Your task to perform on an android device: Search for vegetarian restaurants on Maps Image 0: 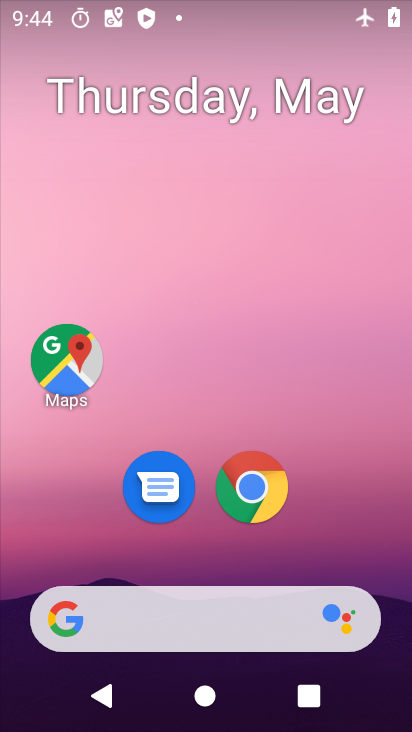
Step 0: drag from (290, 615) to (311, 205)
Your task to perform on an android device: Search for vegetarian restaurants on Maps Image 1: 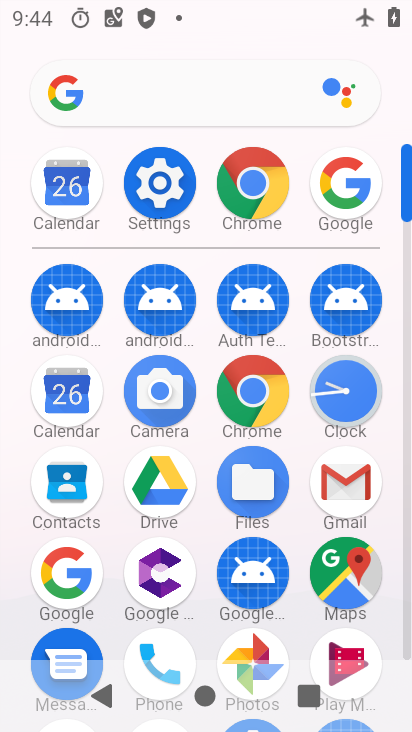
Step 1: click (363, 585)
Your task to perform on an android device: Search for vegetarian restaurants on Maps Image 2: 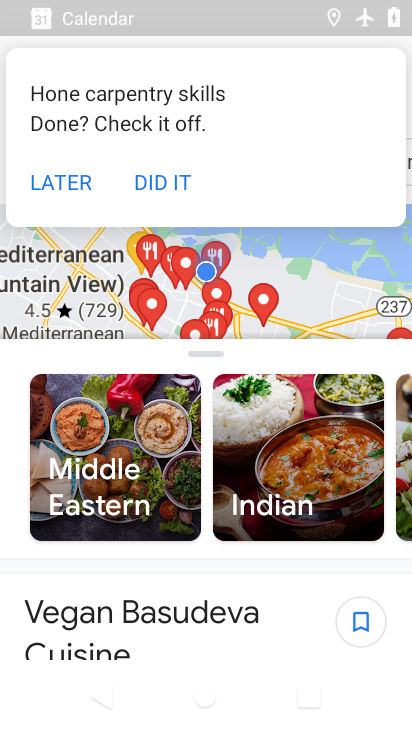
Step 2: task complete